Your task to perform on an android device: toggle notifications settings in the gmail app Image 0: 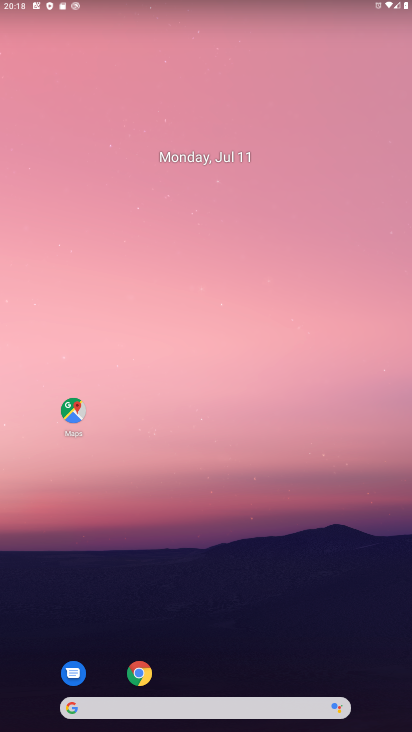
Step 0: drag from (192, 665) to (227, 49)
Your task to perform on an android device: toggle notifications settings in the gmail app Image 1: 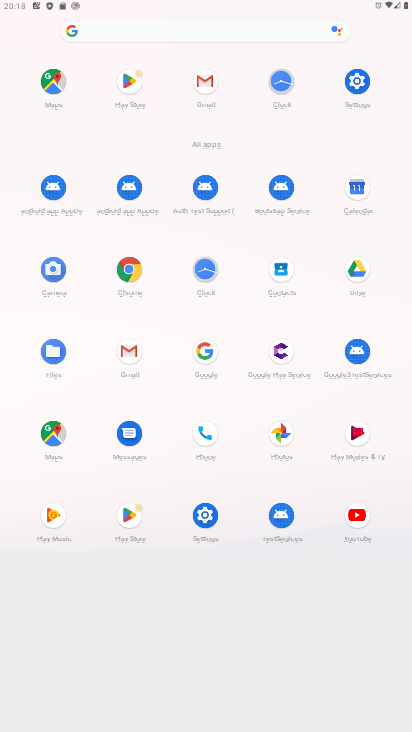
Step 1: click (127, 347)
Your task to perform on an android device: toggle notifications settings in the gmail app Image 2: 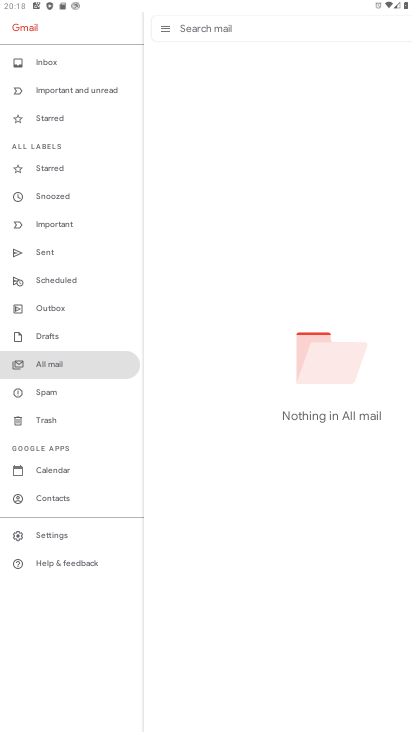
Step 2: click (34, 535)
Your task to perform on an android device: toggle notifications settings in the gmail app Image 3: 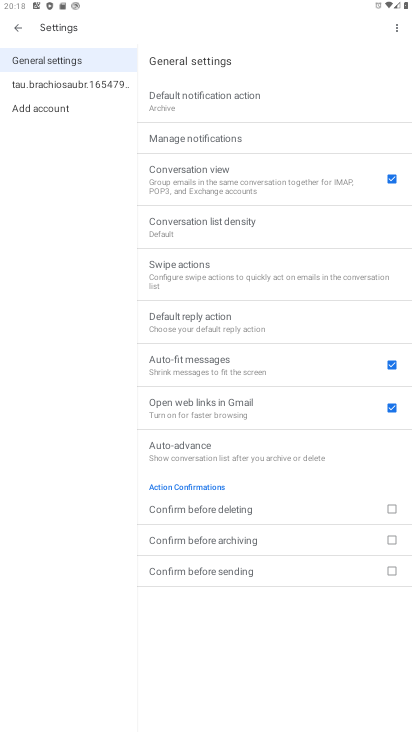
Step 3: click (202, 146)
Your task to perform on an android device: toggle notifications settings in the gmail app Image 4: 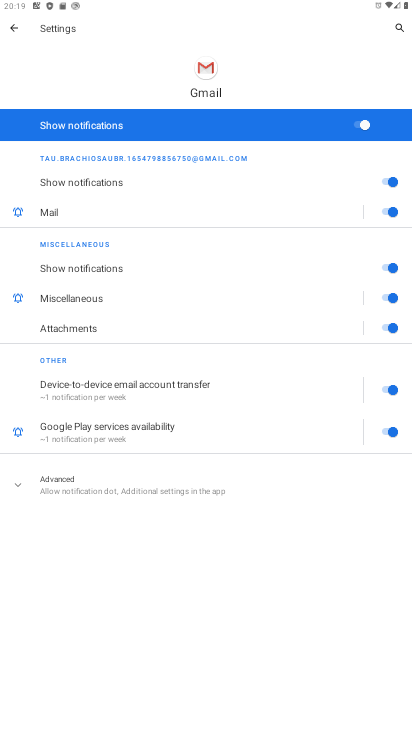
Step 4: click (361, 124)
Your task to perform on an android device: toggle notifications settings in the gmail app Image 5: 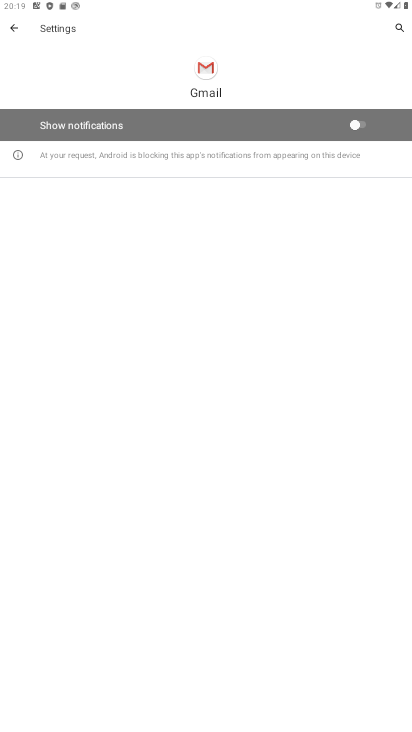
Step 5: task complete